Your task to perform on an android device: Open the web browser Image 0: 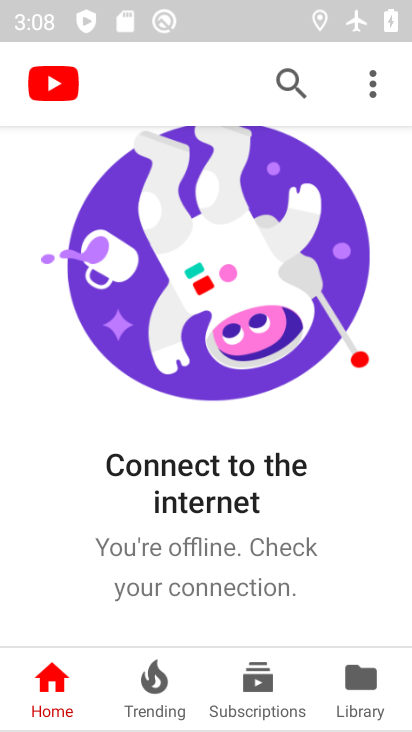
Step 0: press home button
Your task to perform on an android device: Open the web browser Image 1: 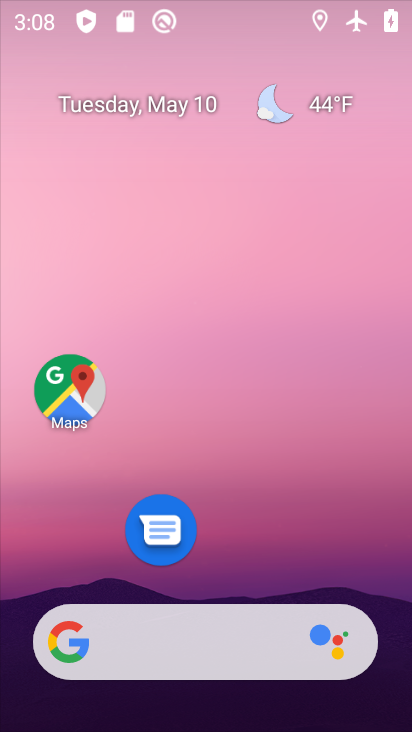
Step 1: drag from (212, 567) to (241, 4)
Your task to perform on an android device: Open the web browser Image 2: 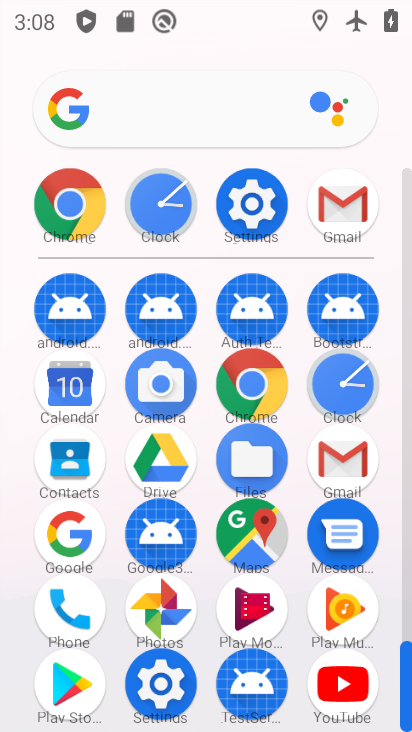
Step 2: click (73, 529)
Your task to perform on an android device: Open the web browser Image 3: 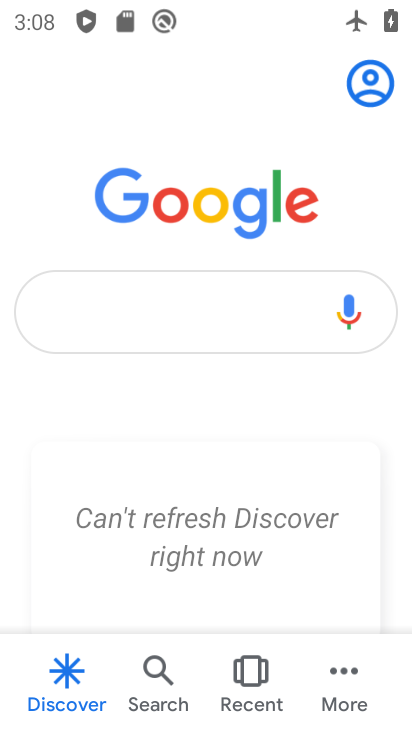
Step 3: task complete